Your task to perform on an android device: search for starred emails in the gmail app Image 0: 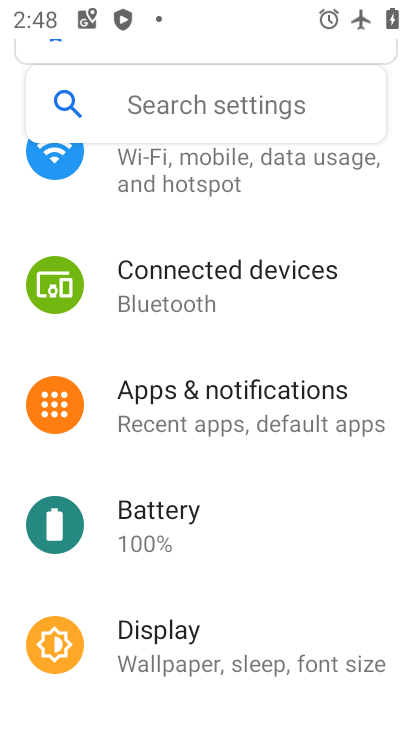
Step 0: press home button
Your task to perform on an android device: search for starred emails in the gmail app Image 1: 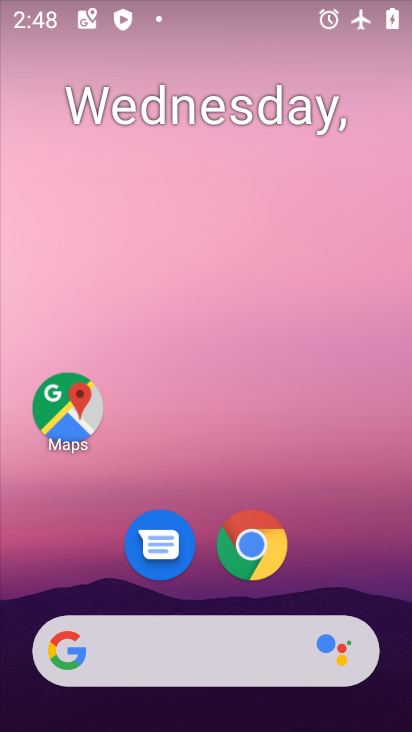
Step 1: drag from (329, 530) to (339, 165)
Your task to perform on an android device: search for starred emails in the gmail app Image 2: 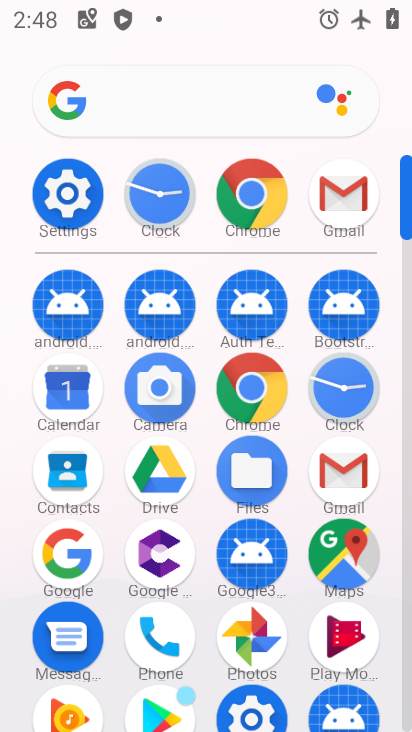
Step 2: click (339, 188)
Your task to perform on an android device: search for starred emails in the gmail app Image 3: 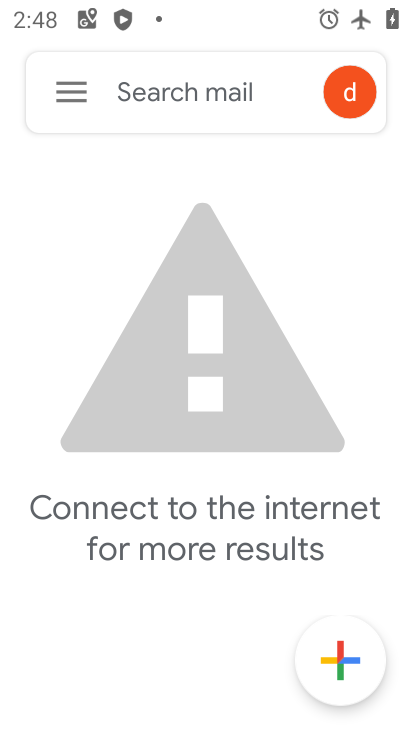
Step 3: click (63, 94)
Your task to perform on an android device: search for starred emails in the gmail app Image 4: 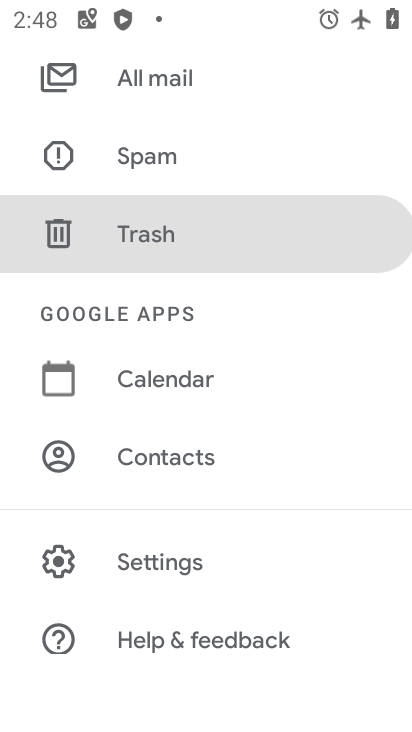
Step 4: drag from (208, 189) to (163, 494)
Your task to perform on an android device: search for starred emails in the gmail app Image 5: 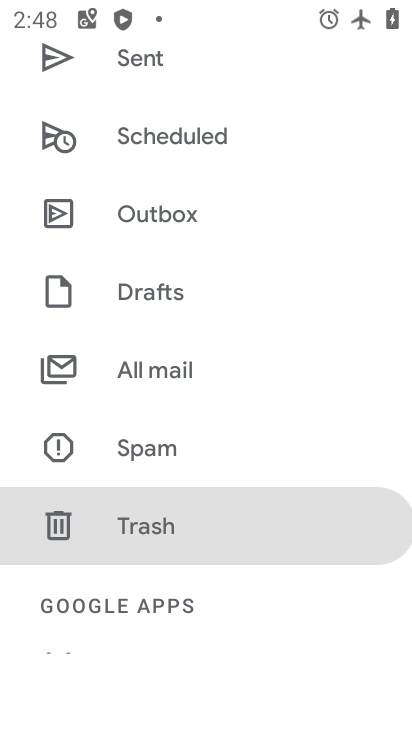
Step 5: drag from (203, 239) to (154, 551)
Your task to perform on an android device: search for starred emails in the gmail app Image 6: 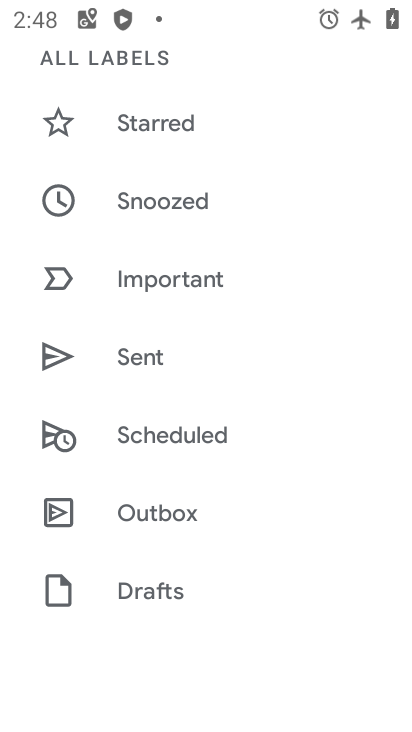
Step 6: click (150, 134)
Your task to perform on an android device: search for starred emails in the gmail app Image 7: 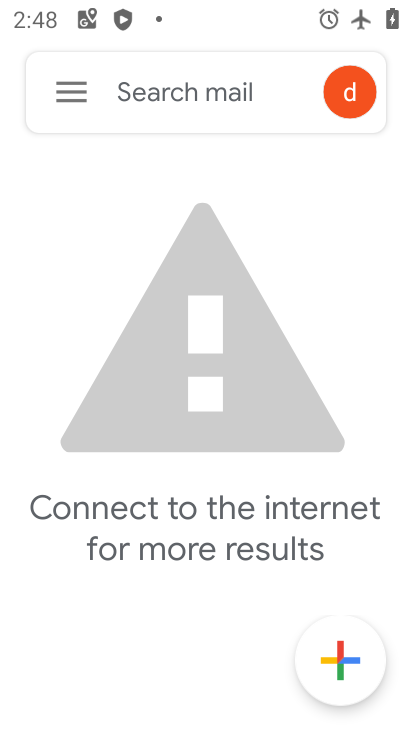
Step 7: task complete